Your task to perform on an android device: visit the assistant section in the google photos Image 0: 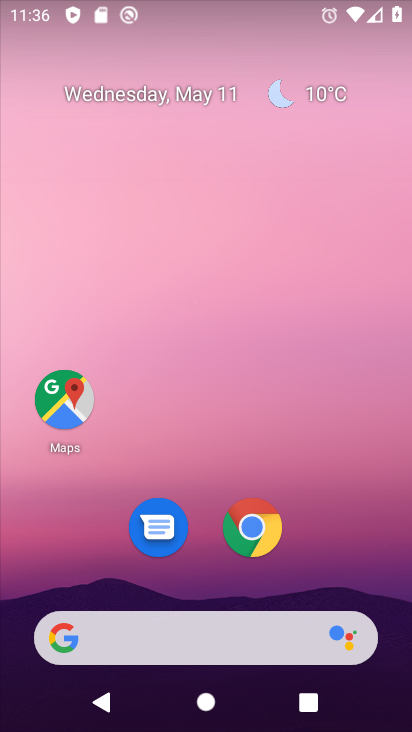
Step 0: drag from (200, 574) to (297, 0)
Your task to perform on an android device: visit the assistant section in the google photos Image 1: 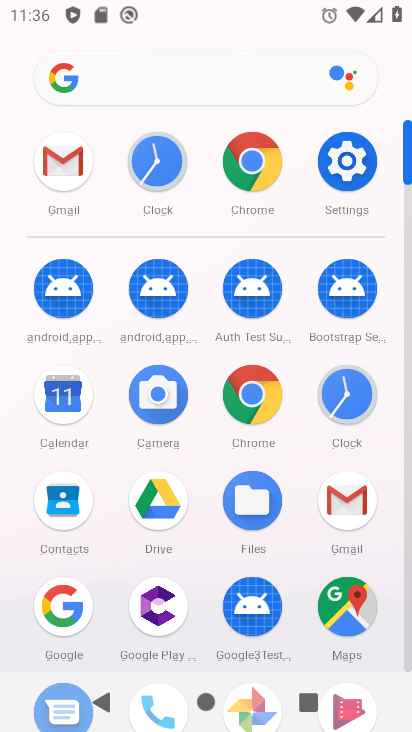
Step 1: drag from (226, 646) to (282, 315)
Your task to perform on an android device: visit the assistant section in the google photos Image 2: 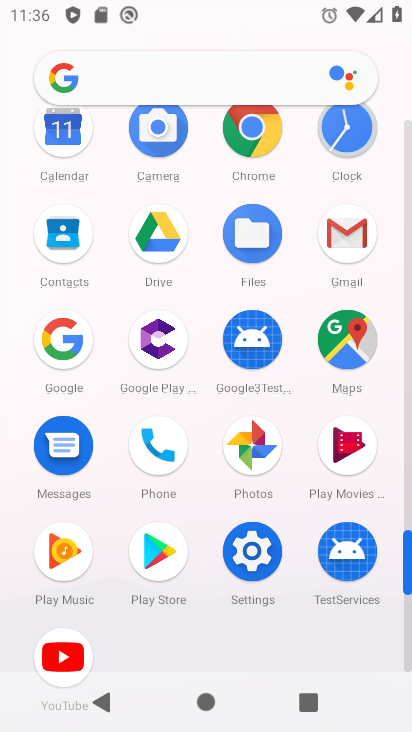
Step 2: click (236, 445)
Your task to perform on an android device: visit the assistant section in the google photos Image 3: 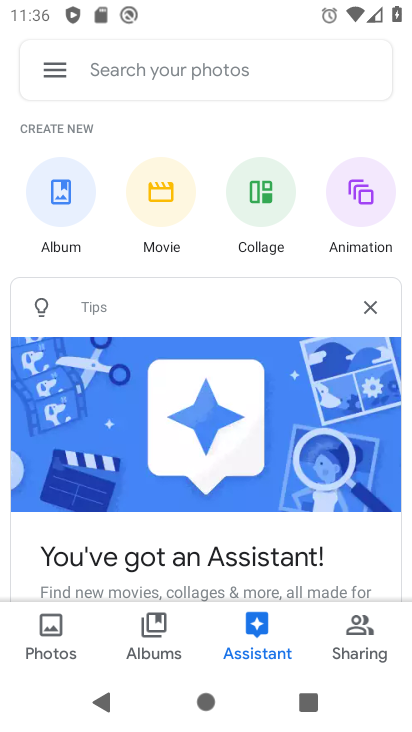
Step 3: task complete